Your task to perform on an android device: allow notifications from all sites in the chrome app Image 0: 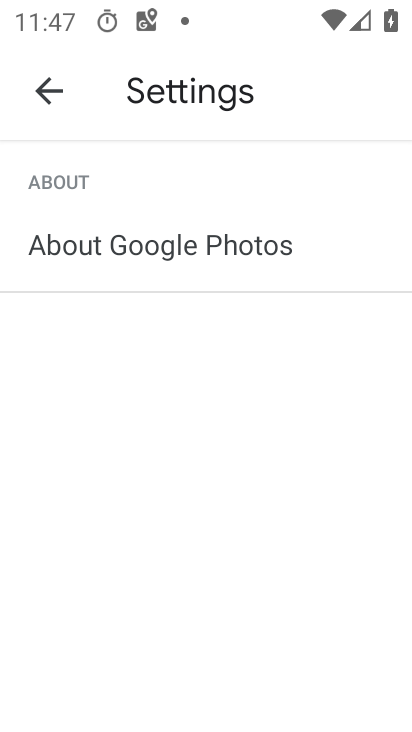
Step 0: press home button
Your task to perform on an android device: allow notifications from all sites in the chrome app Image 1: 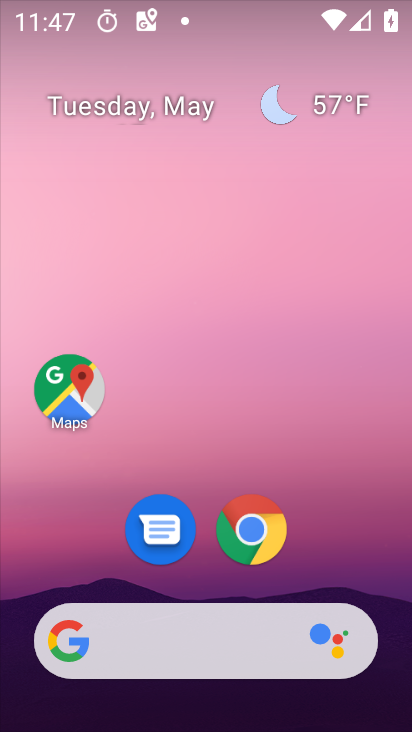
Step 1: drag from (205, 571) to (222, 191)
Your task to perform on an android device: allow notifications from all sites in the chrome app Image 2: 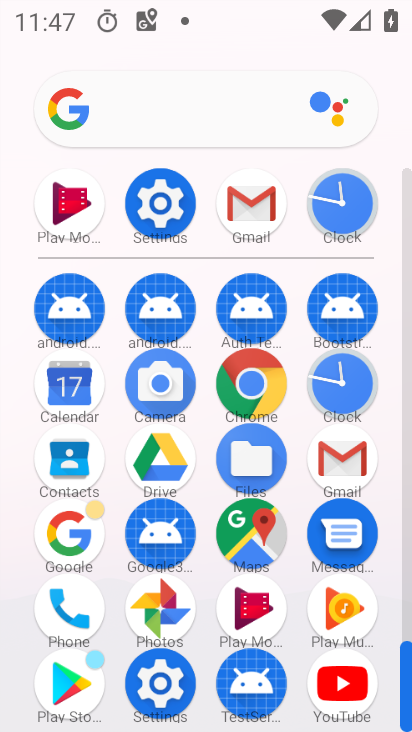
Step 2: click (166, 199)
Your task to perform on an android device: allow notifications from all sites in the chrome app Image 3: 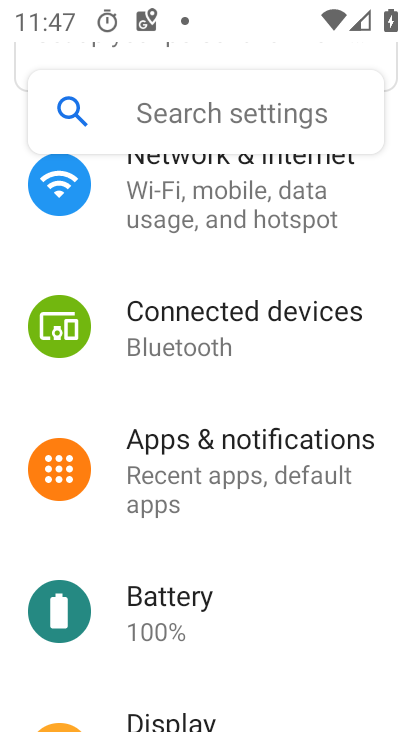
Step 3: click (206, 441)
Your task to perform on an android device: allow notifications from all sites in the chrome app Image 4: 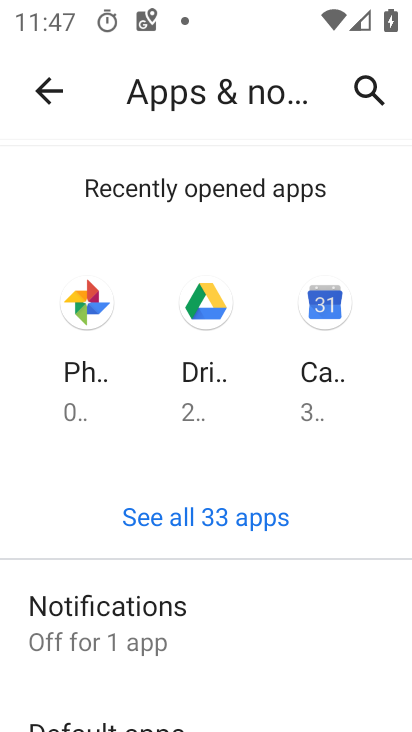
Step 4: click (152, 507)
Your task to perform on an android device: allow notifications from all sites in the chrome app Image 5: 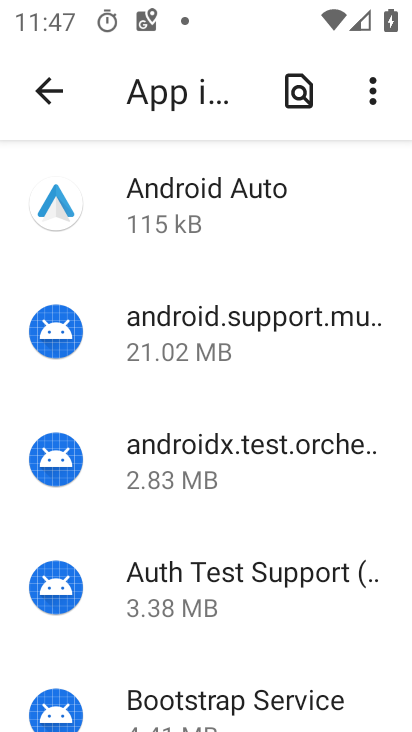
Step 5: drag from (152, 623) to (224, 184)
Your task to perform on an android device: allow notifications from all sites in the chrome app Image 6: 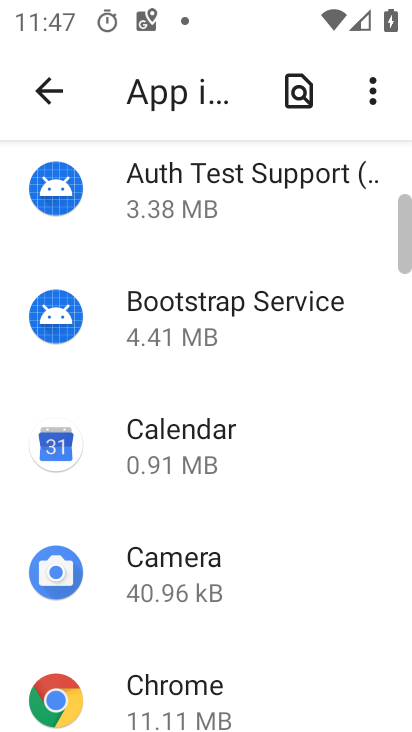
Step 6: drag from (119, 625) to (305, 62)
Your task to perform on an android device: allow notifications from all sites in the chrome app Image 7: 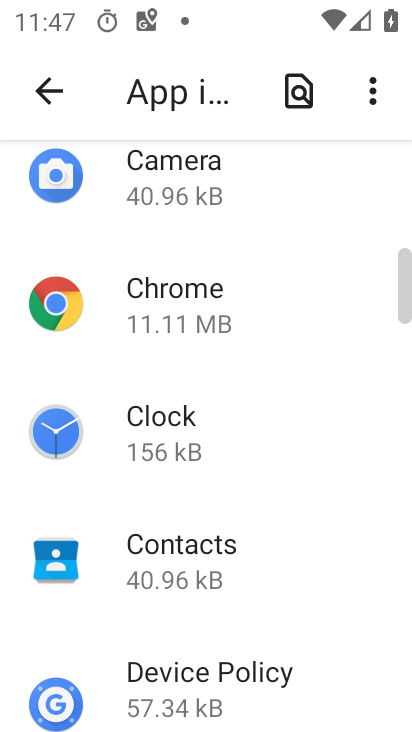
Step 7: click (205, 334)
Your task to perform on an android device: allow notifications from all sites in the chrome app Image 8: 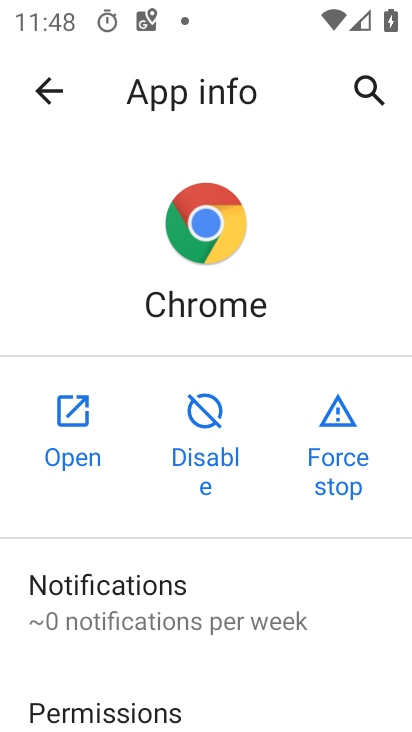
Step 8: click (160, 565)
Your task to perform on an android device: allow notifications from all sites in the chrome app Image 9: 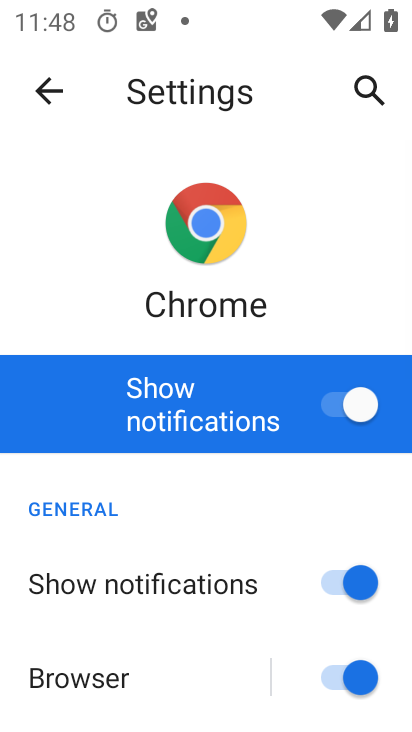
Step 9: task complete